Your task to perform on an android device: Open eBay Image 0: 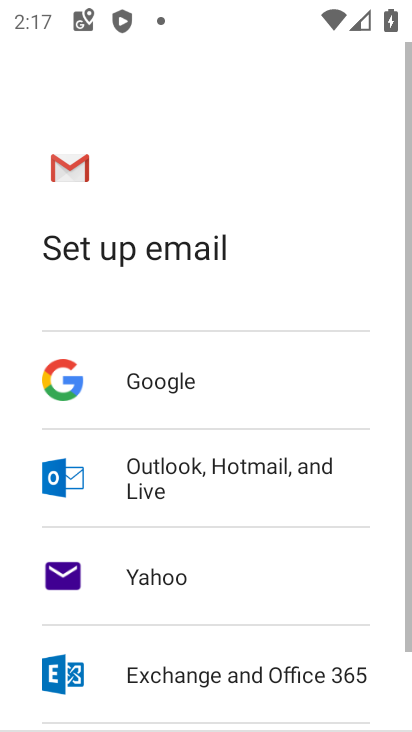
Step 0: press home button
Your task to perform on an android device: Open eBay Image 1: 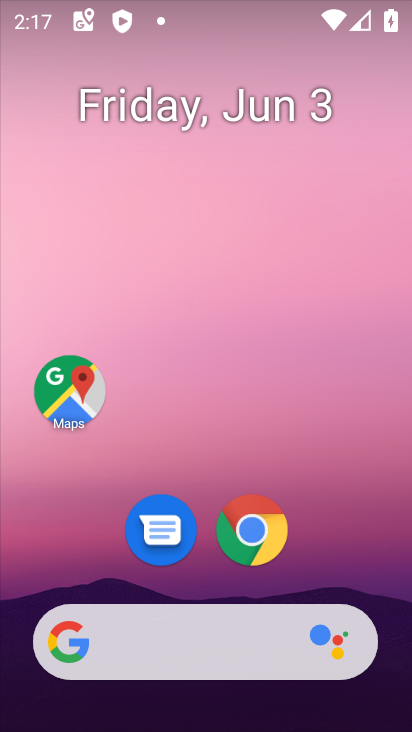
Step 1: click (184, 639)
Your task to perform on an android device: Open eBay Image 2: 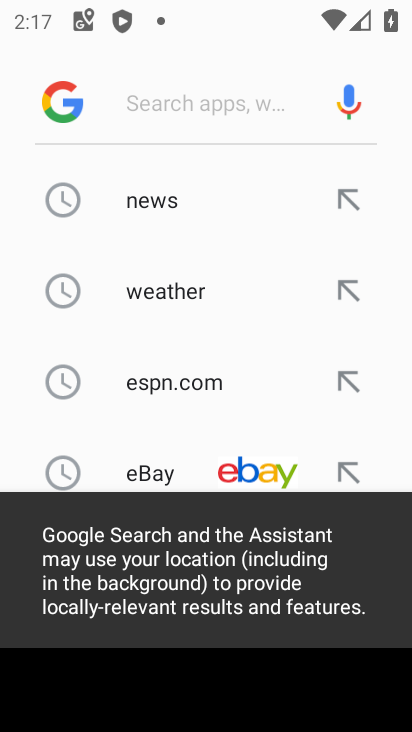
Step 2: click (159, 474)
Your task to perform on an android device: Open eBay Image 3: 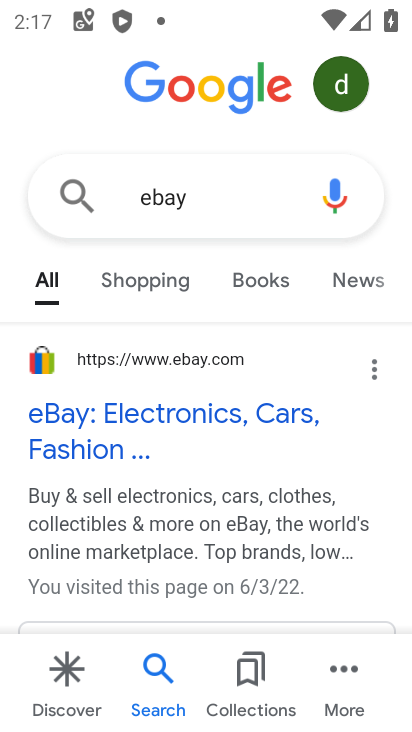
Step 3: task complete